Your task to perform on an android device: Is it going to rain today? Image 0: 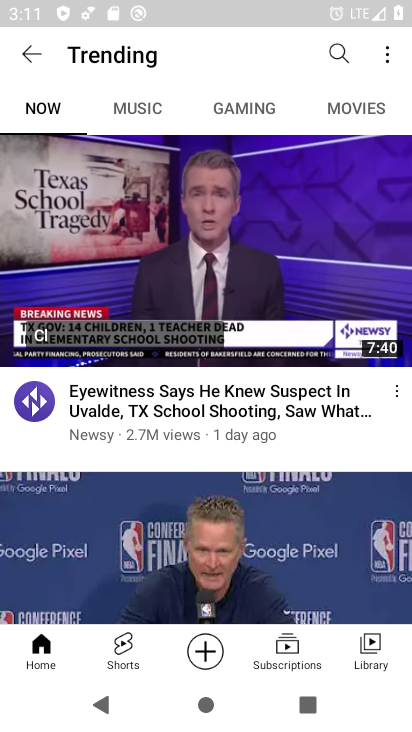
Step 0: press home button
Your task to perform on an android device: Is it going to rain today? Image 1: 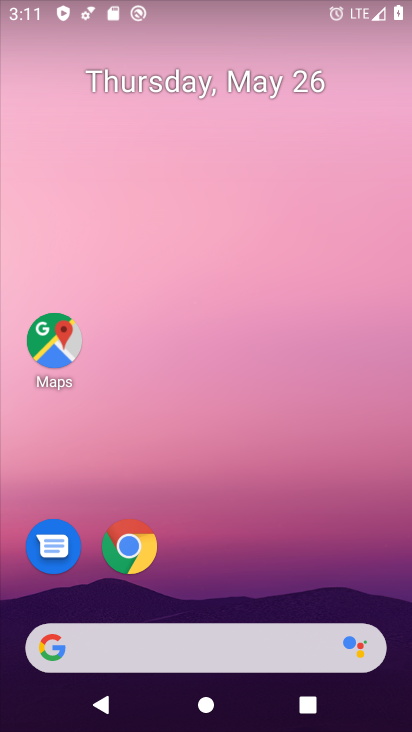
Step 1: drag from (213, 589) to (258, 143)
Your task to perform on an android device: Is it going to rain today? Image 2: 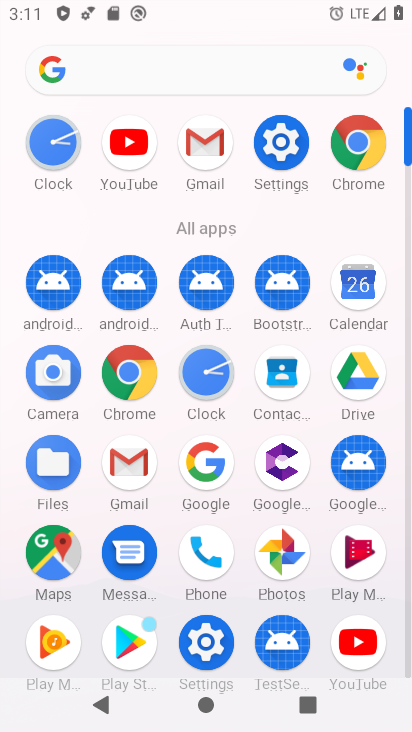
Step 2: click (167, 79)
Your task to perform on an android device: Is it going to rain today? Image 3: 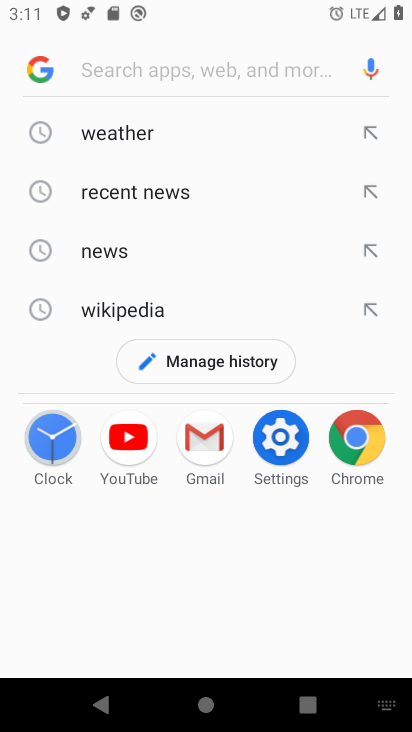
Step 3: click (111, 131)
Your task to perform on an android device: Is it going to rain today? Image 4: 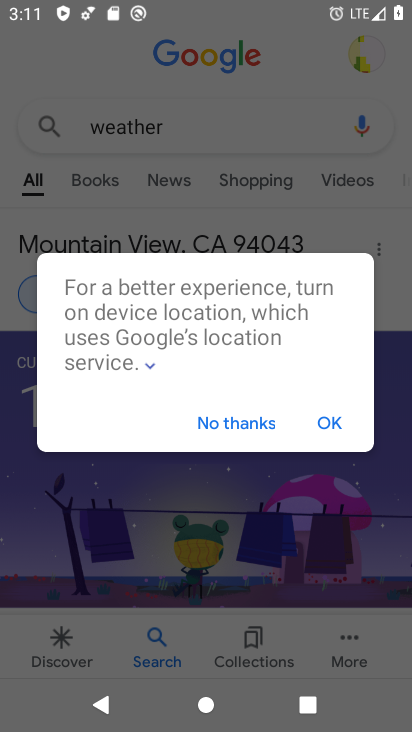
Step 4: task complete